Your task to perform on an android device: set the stopwatch Image 0: 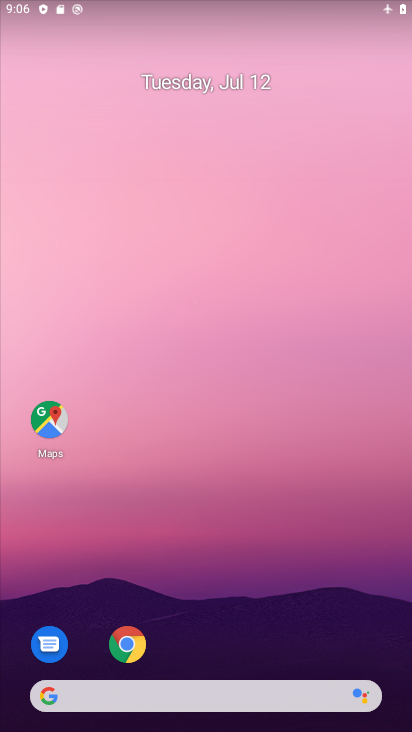
Step 0: drag from (226, 646) to (287, 158)
Your task to perform on an android device: set the stopwatch Image 1: 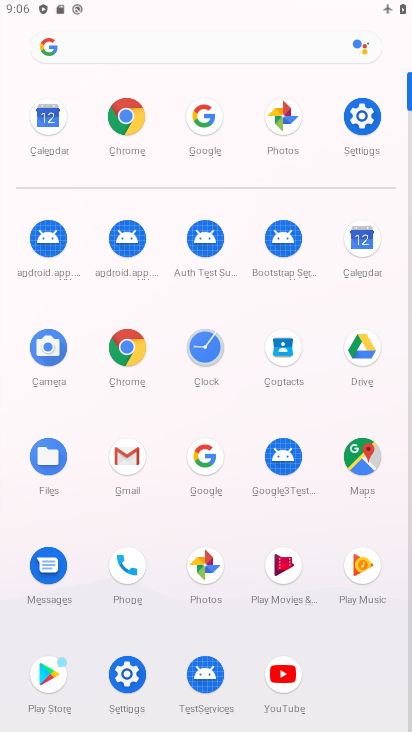
Step 1: click (206, 342)
Your task to perform on an android device: set the stopwatch Image 2: 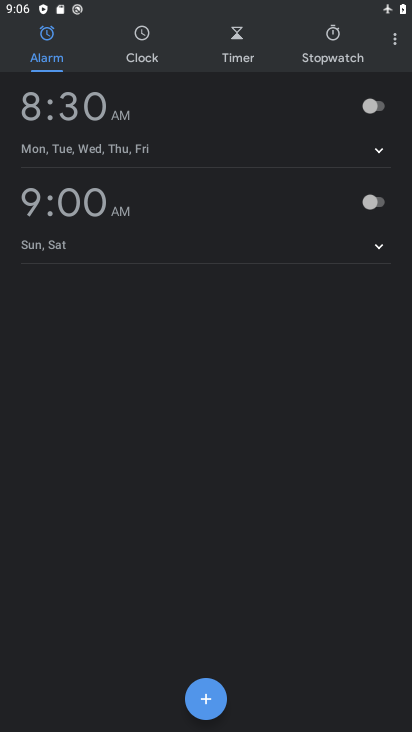
Step 2: click (314, 38)
Your task to perform on an android device: set the stopwatch Image 3: 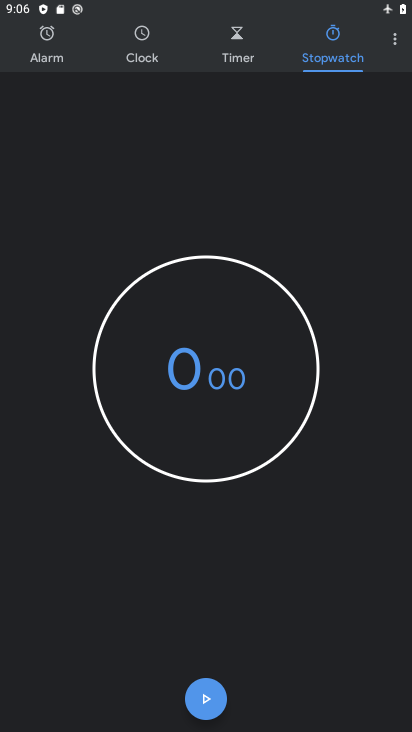
Step 3: click (204, 703)
Your task to perform on an android device: set the stopwatch Image 4: 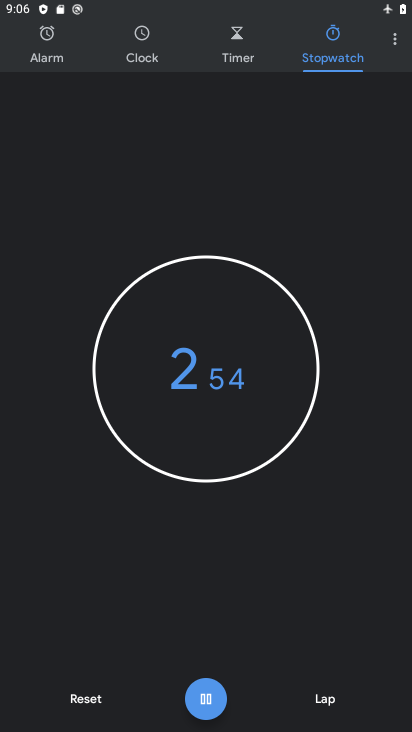
Step 4: task complete